Your task to perform on an android device: find snoozed emails in the gmail app Image 0: 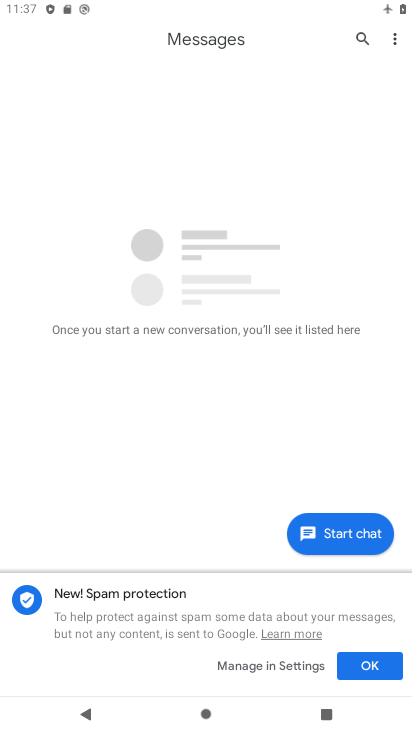
Step 0: press home button
Your task to perform on an android device: find snoozed emails in the gmail app Image 1: 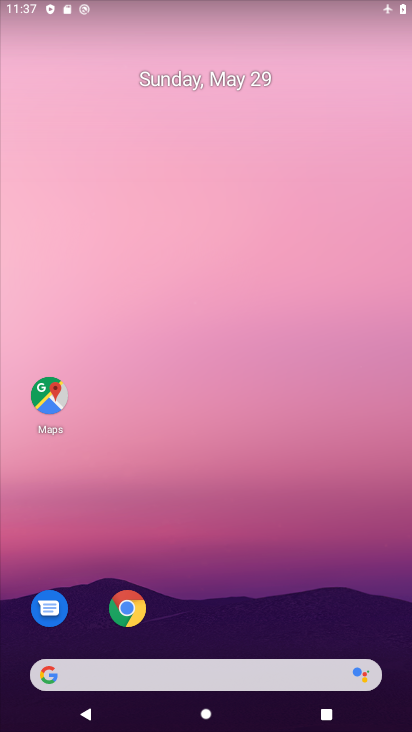
Step 1: drag from (197, 649) to (33, 258)
Your task to perform on an android device: find snoozed emails in the gmail app Image 2: 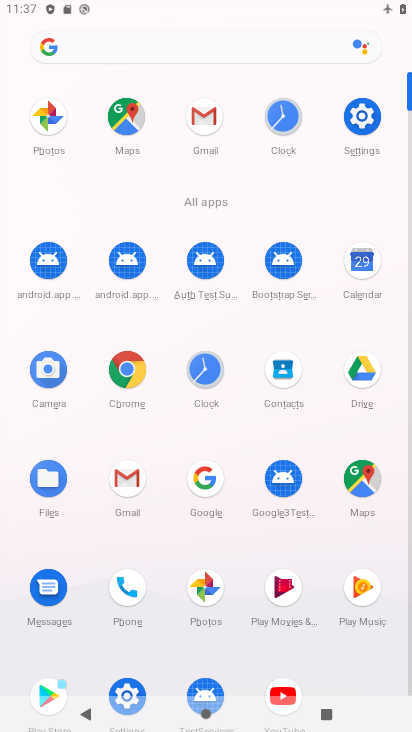
Step 2: click (104, 486)
Your task to perform on an android device: find snoozed emails in the gmail app Image 3: 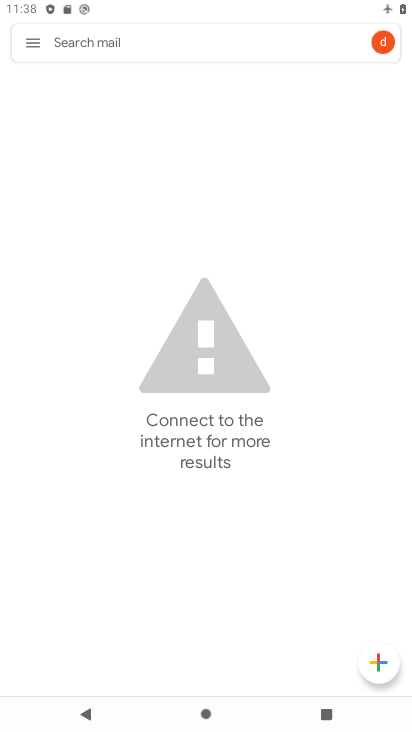
Step 3: click (36, 35)
Your task to perform on an android device: find snoozed emails in the gmail app Image 4: 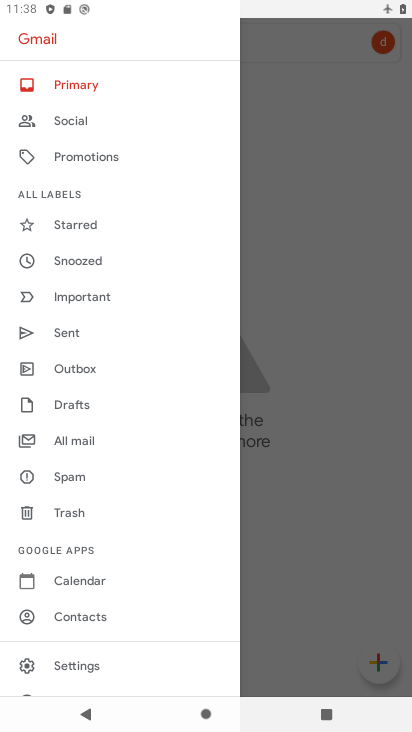
Step 4: click (63, 262)
Your task to perform on an android device: find snoozed emails in the gmail app Image 5: 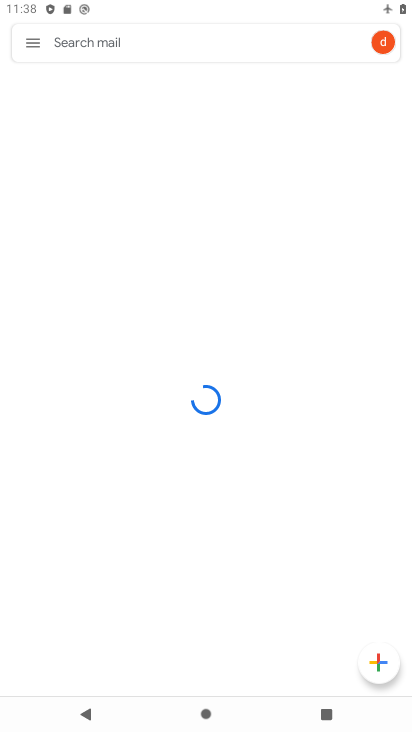
Step 5: task complete